Your task to perform on an android device: add a label to a message in the gmail app Image 0: 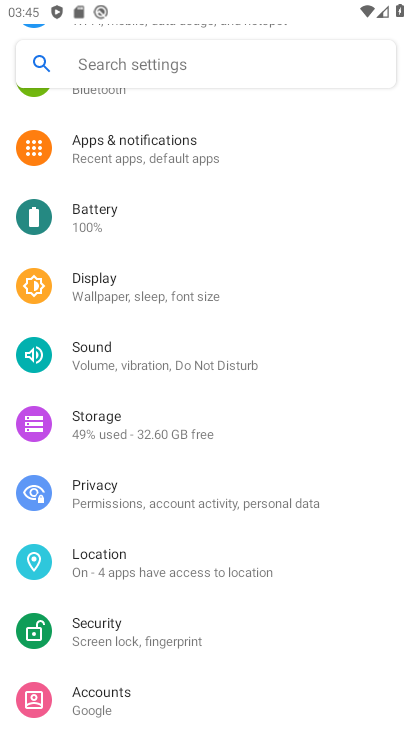
Step 0: press home button
Your task to perform on an android device: add a label to a message in the gmail app Image 1: 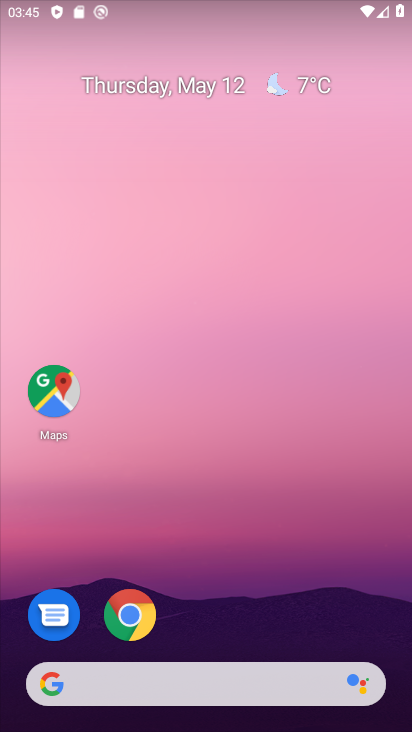
Step 1: drag from (259, 581) to (240, 11)
Your task to perform on an android device: add a label to a message in the gmail app Image 2: 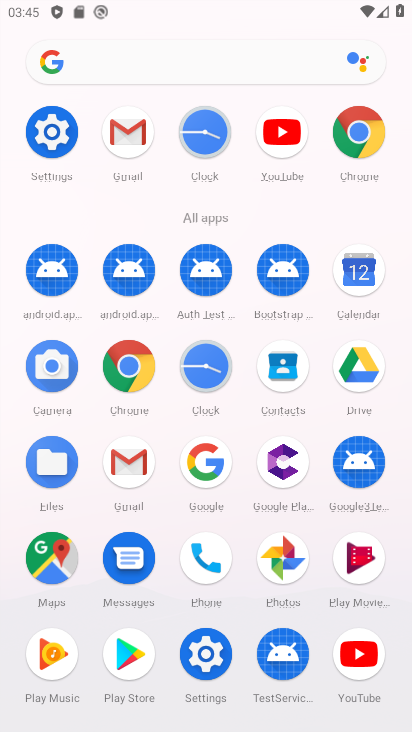
Step 2: click (118, 457)
Your task to perform on an android device: add a label to a message in the gmail app Image 3: 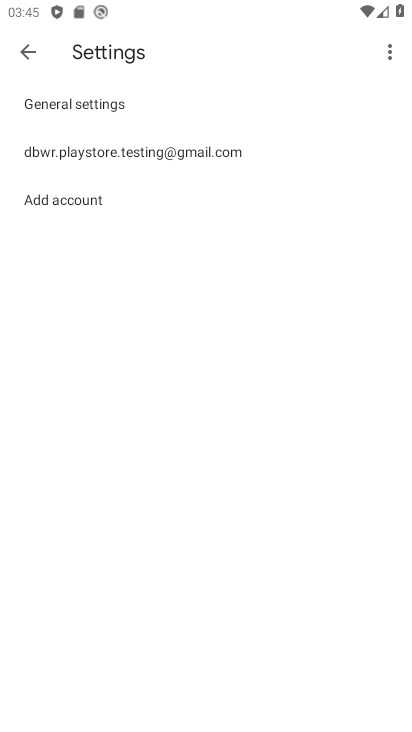
Step 3: click (31, 40)
Your task to perform on an android device: add a label to a message in the gmail app Image 4: 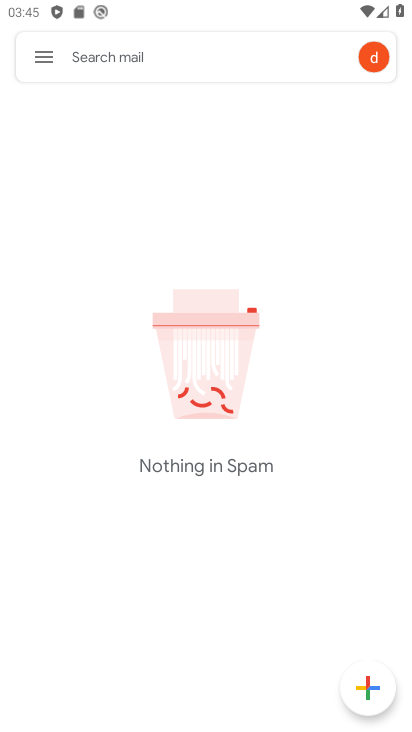
Step 4: click (39, 30)
Your task to perform on an android device: add a label to a message in the gmail app Image 5: 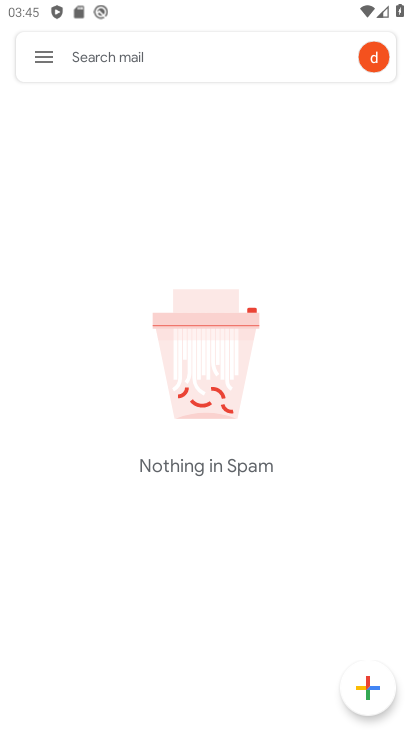
Step 5: click (45, 51)
Your task to perform on an android device: add a label to a message in the gmail app Image 6: 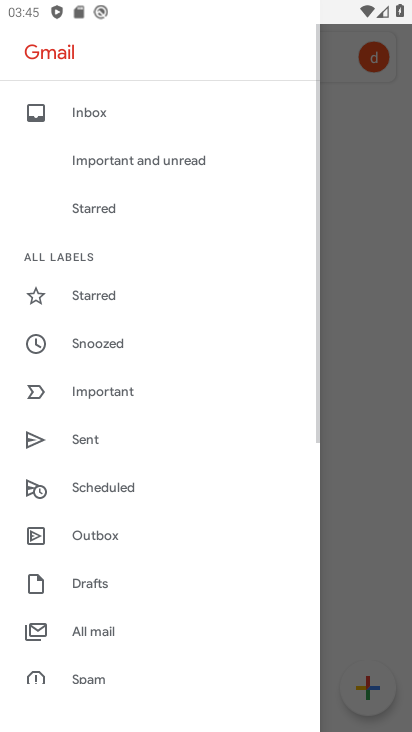
Step 6: drag from (119, 649) to (110, 156)
Your task to perform on an android device: add a label to a message in the gmail app Image 7: 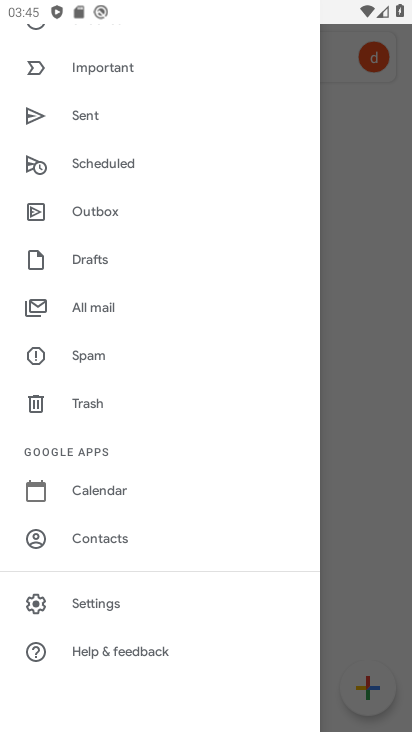
Step 7: click (112, 310)
Your task to perform on an android device: add a label to a message in the gmail app Image 8: 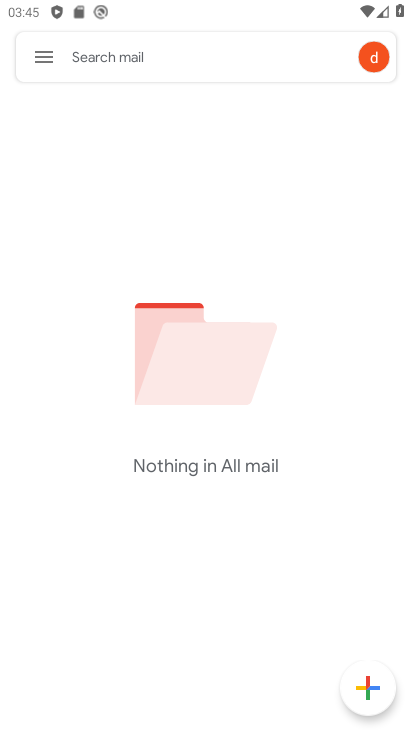
Step 8: task complete